Your task to perform on an android device: When is my next meeting? Image 0: 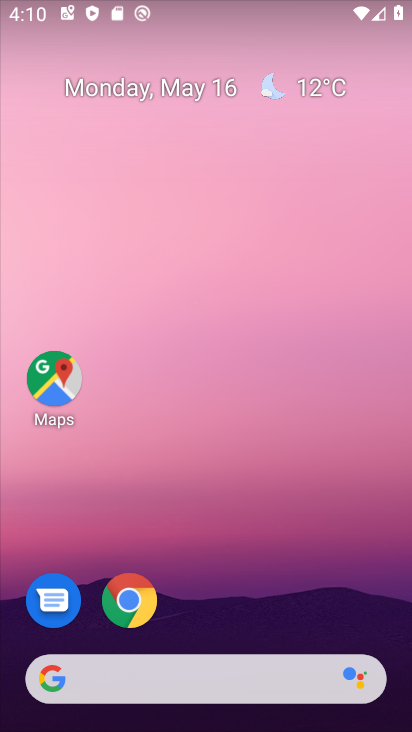
Step 0: click (126, 613)
Your task to perform on an android device: When is my next meeting? Image 1: 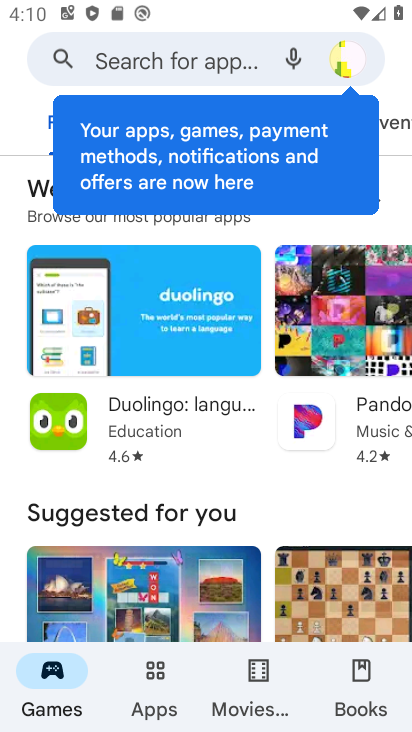
Step 1: press home button
Your task to perform on an android device: When is my next meeting? Image 2: 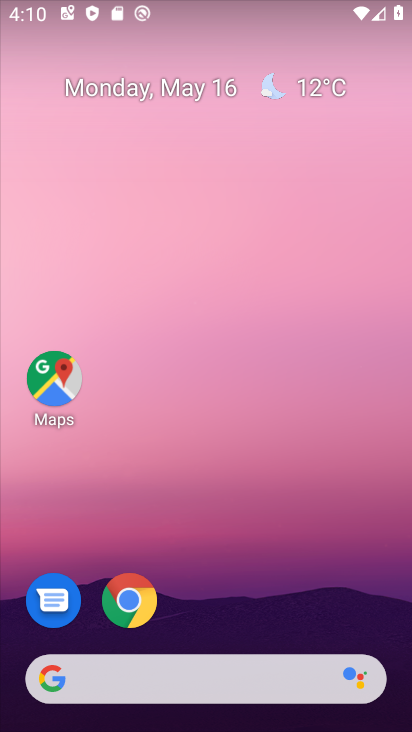
Step 2: drag from (188, 664) to (262, 299)
Your task to perform on an android device: When is my next meeting? Image 3: 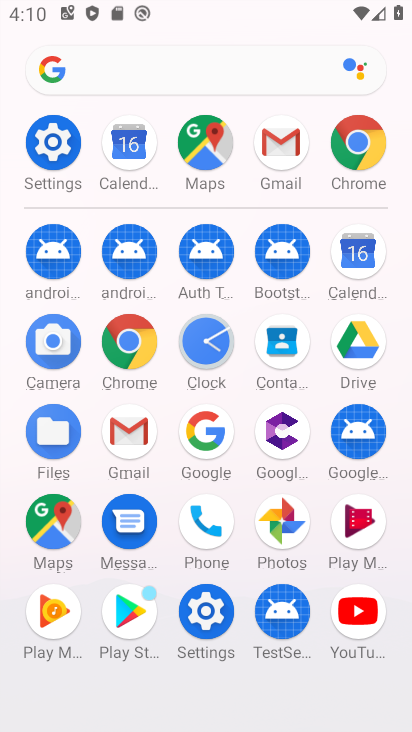
Step 3: click (370, 260)
Your task to perform on an android device: When is my next meeting? Image 4: 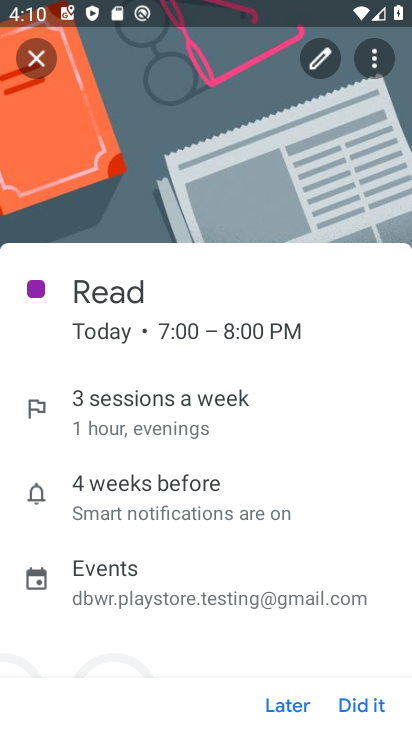
Step 4: task complete